Your task to perform on an android device: Search for Italian restaurants on Maps Image 0: 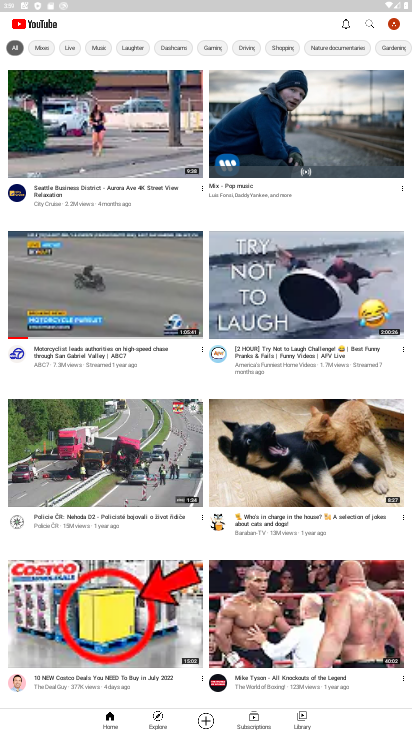
Step 0: press home button
Your task to perform on an android device: Search for Italian restaurants on Maps Image 1: 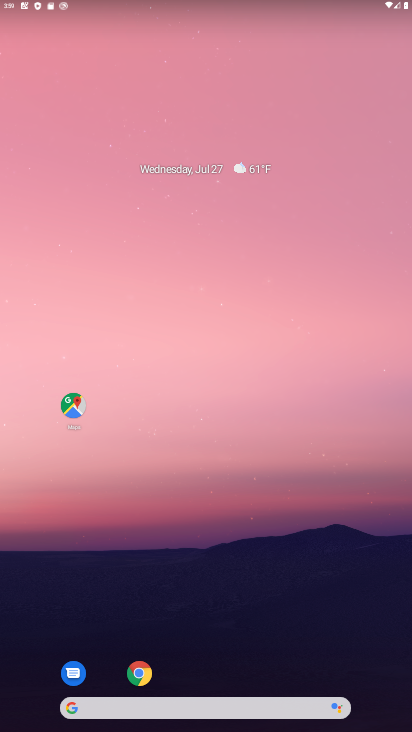
Step 1: click (71, 404)
Your task to perform on an android device: Search for Italian restaurants on Maps Image 2: 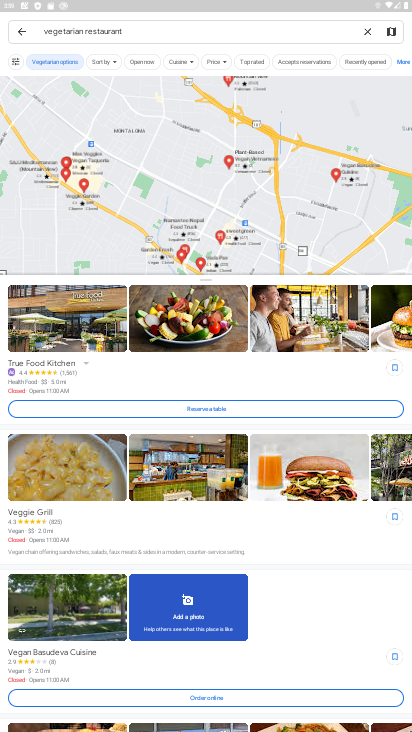
Step 2: click (366, 33)
Your task to perform on an android device: Search for Italian restaurants on Maps Image 3: 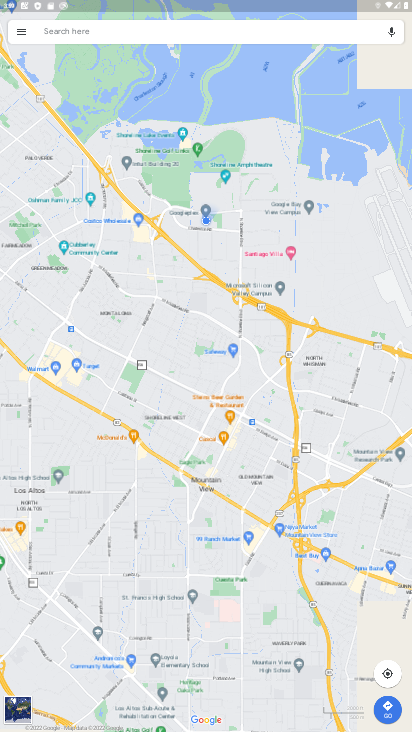
Step 3: click (310, 27)
Your task to perform on an android device: Search for Italian restaurants on Maps Image 4: 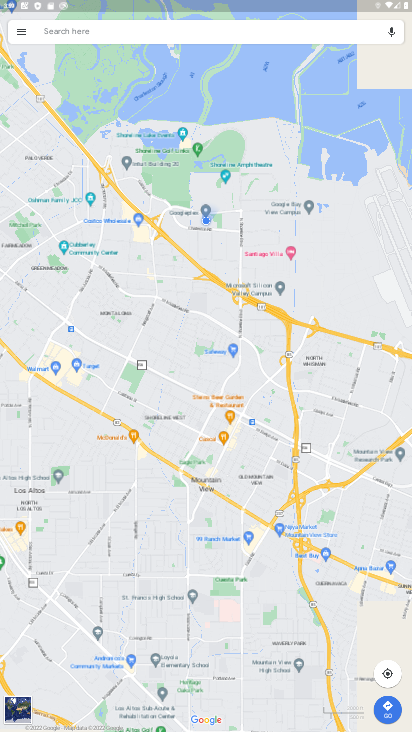
Step 4: click (310, 27)
Your task to perform on an android device: Search for Italian restaurants on Maps Image 5: 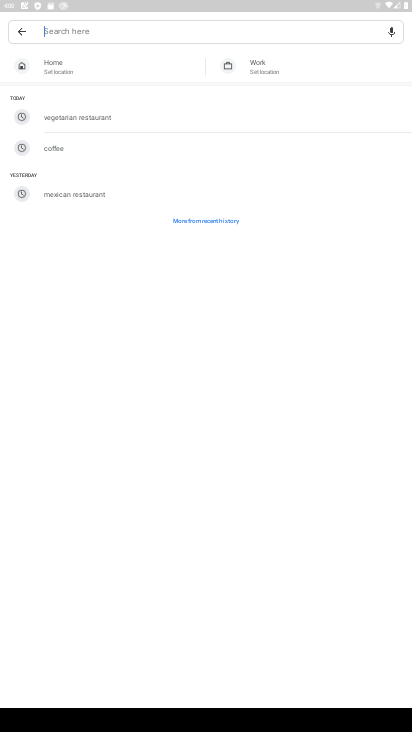
Step 5: type "italian restaurant"
Your task to perform on an android device: Search for Italian restaurants on Maps Image 6: 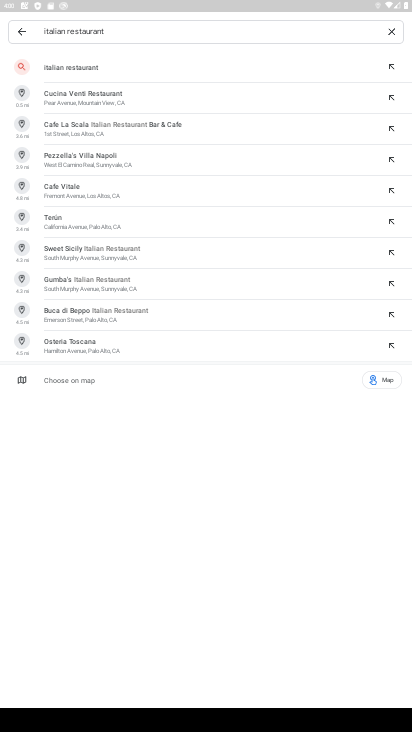
Step 6: click (186, 61)
Your task to perform on an android device: Search for Italian restaurants on Maps Image 7: 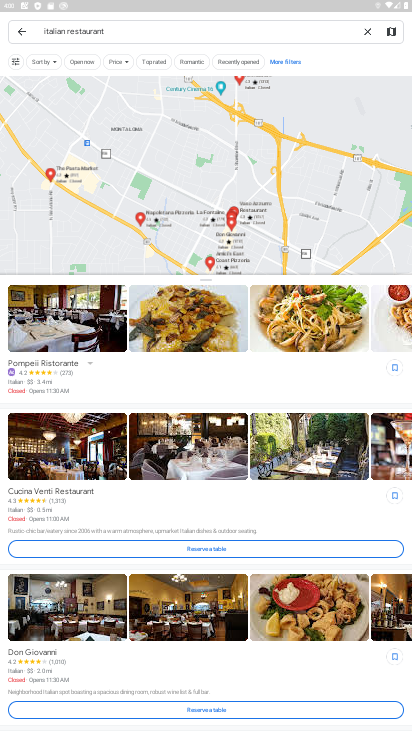
Step 7: task complete